Your task to perform on an android device: add a contact Image 0: 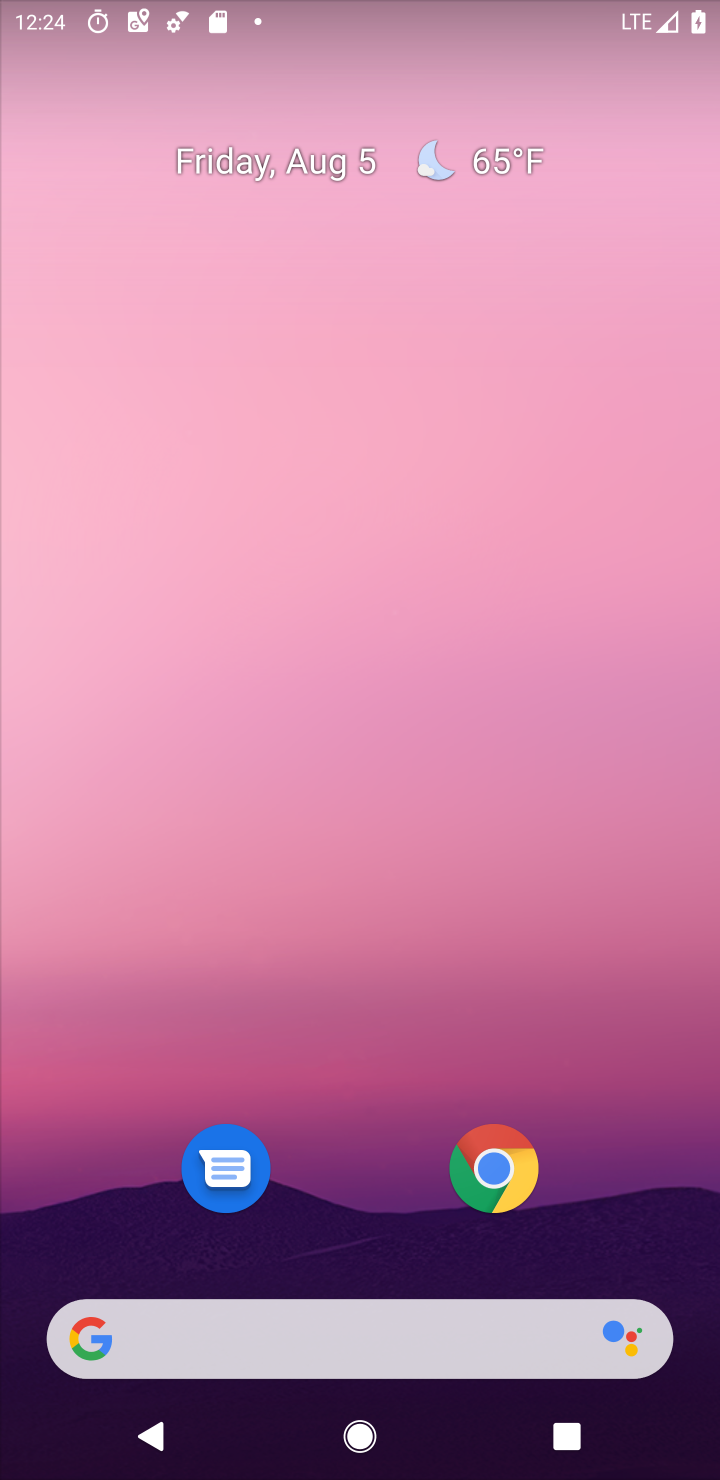
Step 0: drag from (311, 1208) to (407, 101)
Your task to perform on an android device: add a contact Image 1: 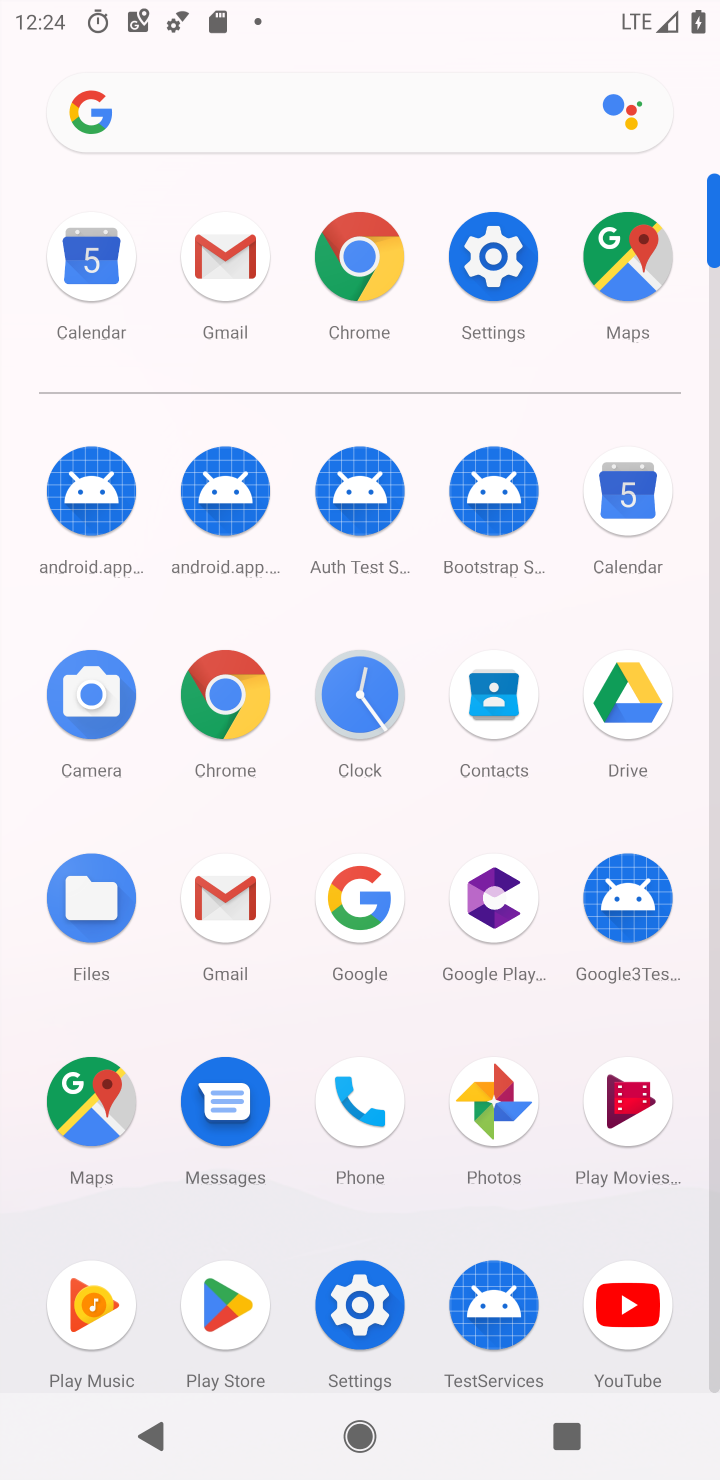
Step 1: click (468, 761)
Your task to perform on an android device: add a contact Image 2: 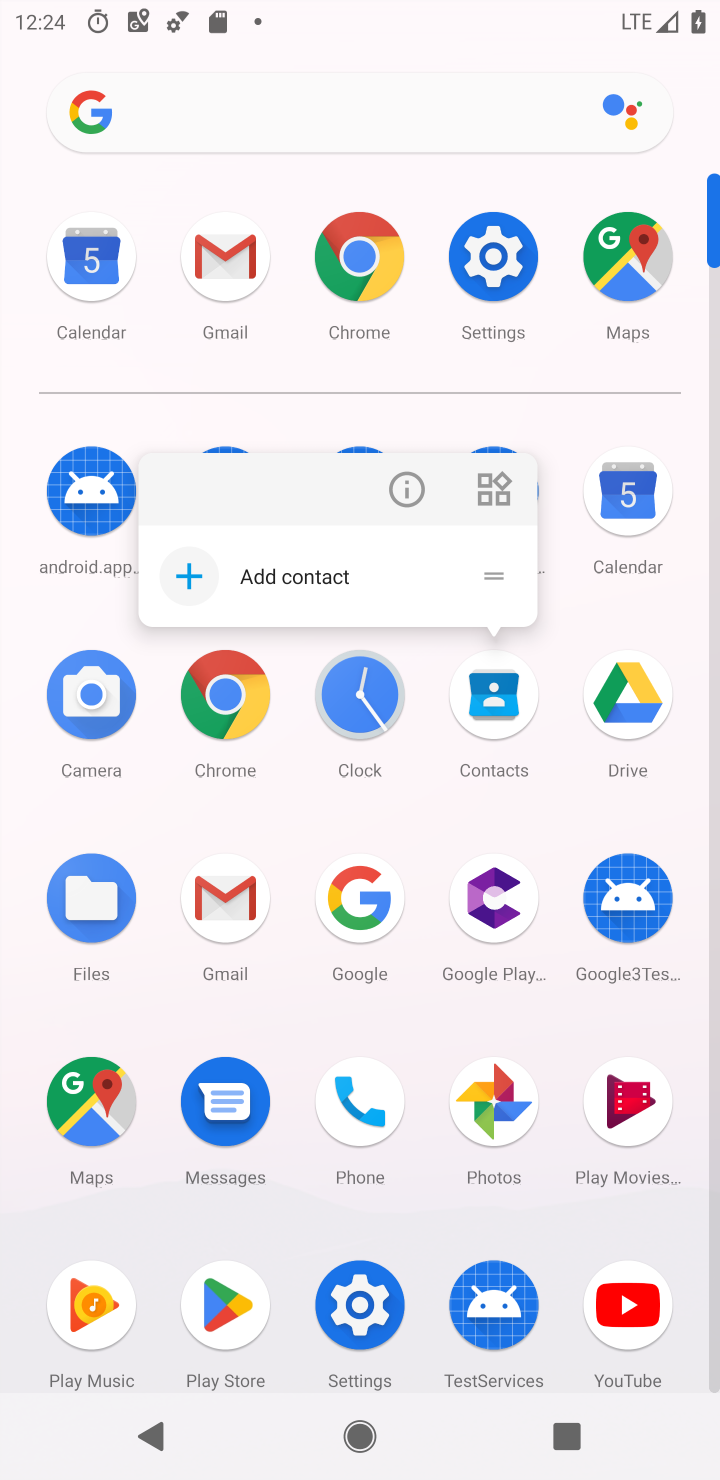
Step 2: click (492, 744)
Your task to perform on an android device: add a contact Image 3: 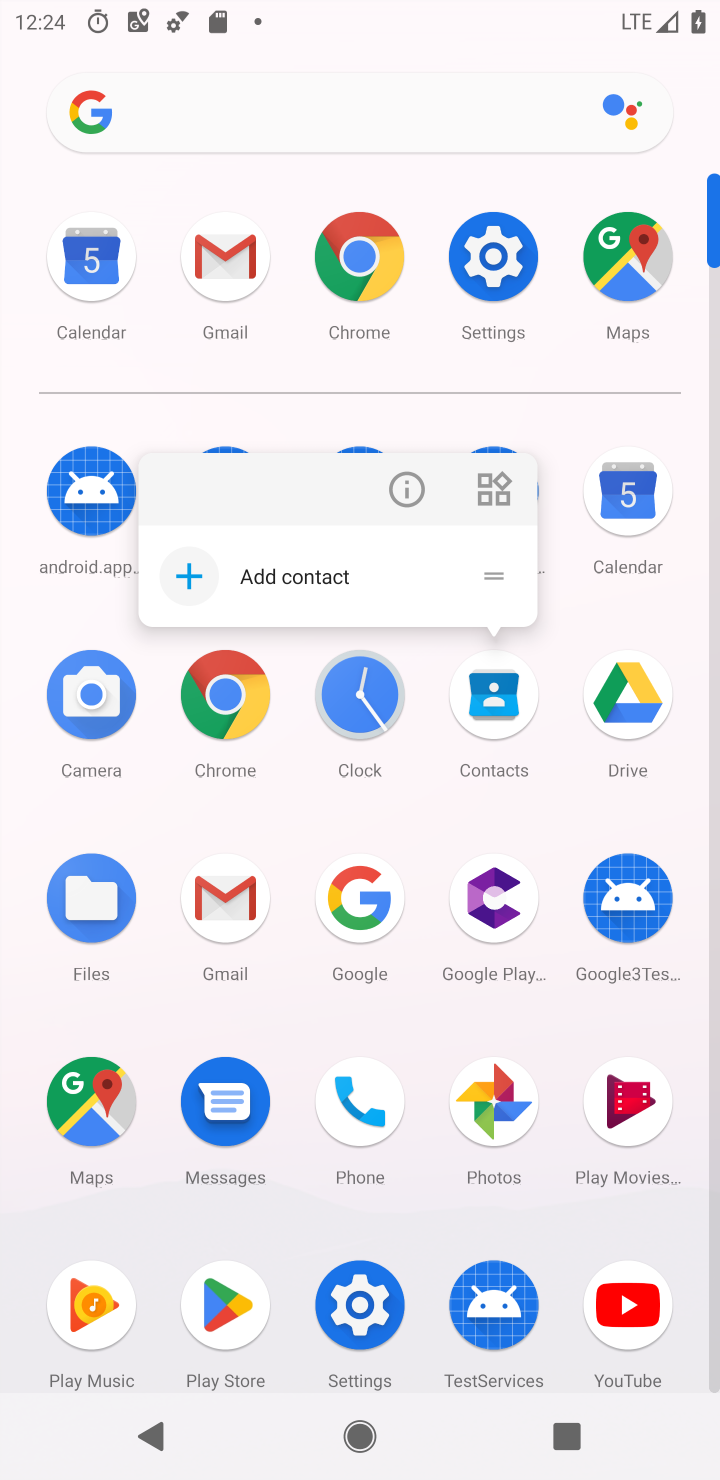
Step 3: click (492, 744)
Your task to perform on an android device: add a contact Image 4: 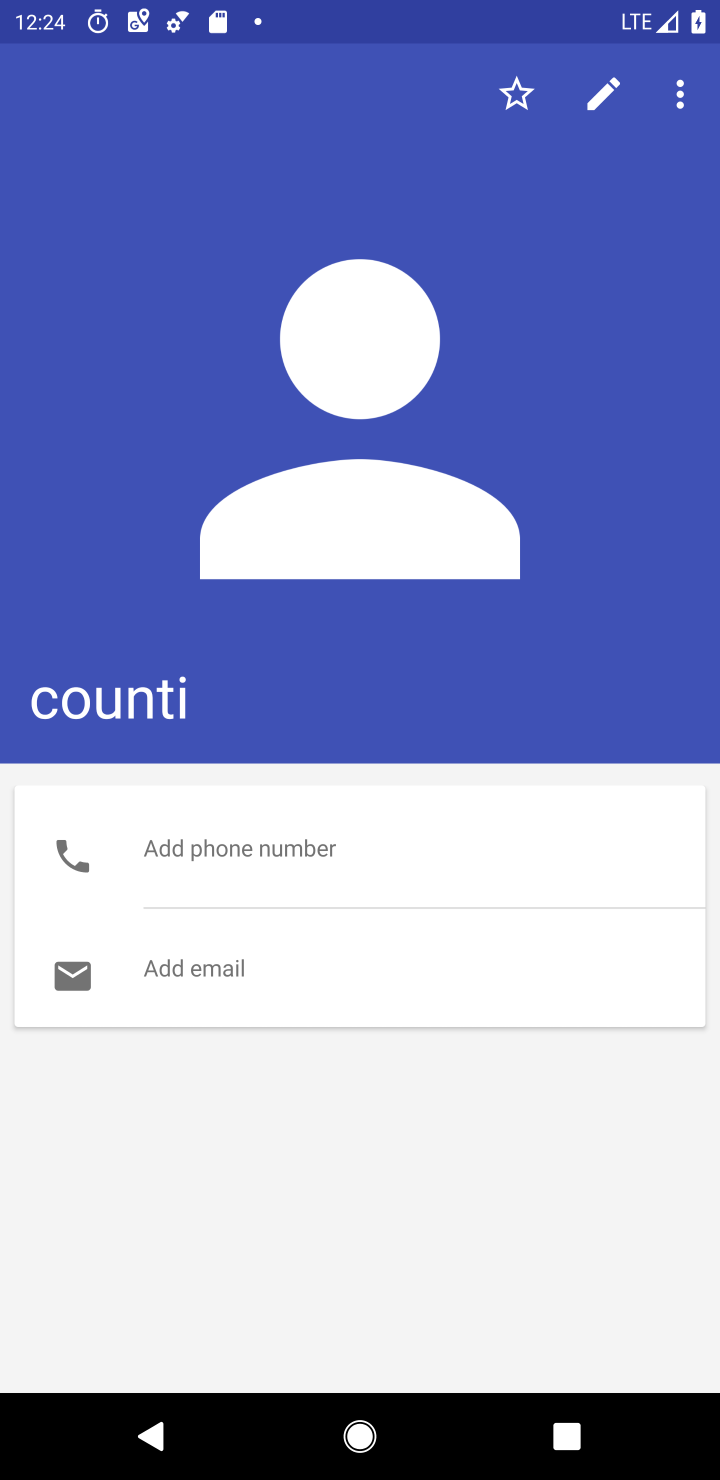
Step 4: click (136, 1421)
Your task to perform on an android device: add a contact Image 5: 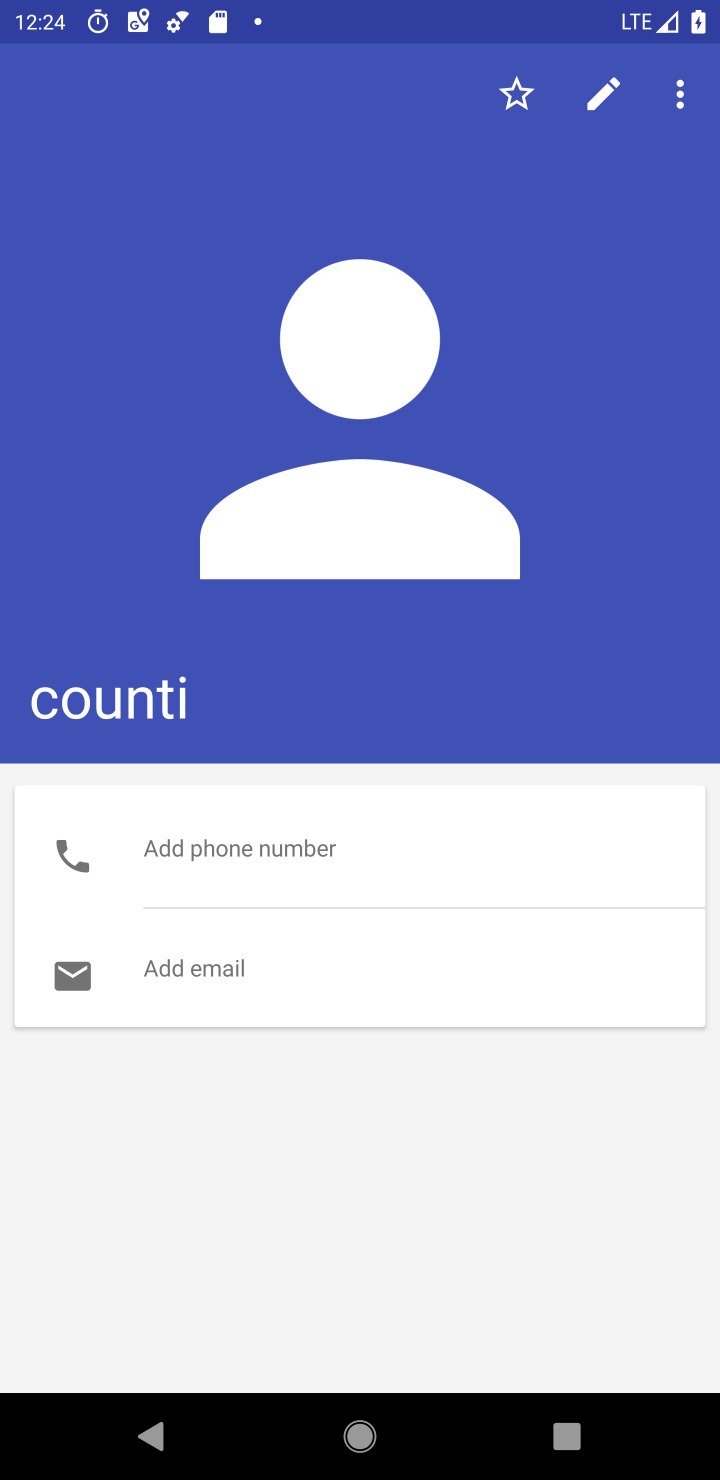
Step 5: press back button
Your task to perform on an android device: add a contact Image 6: 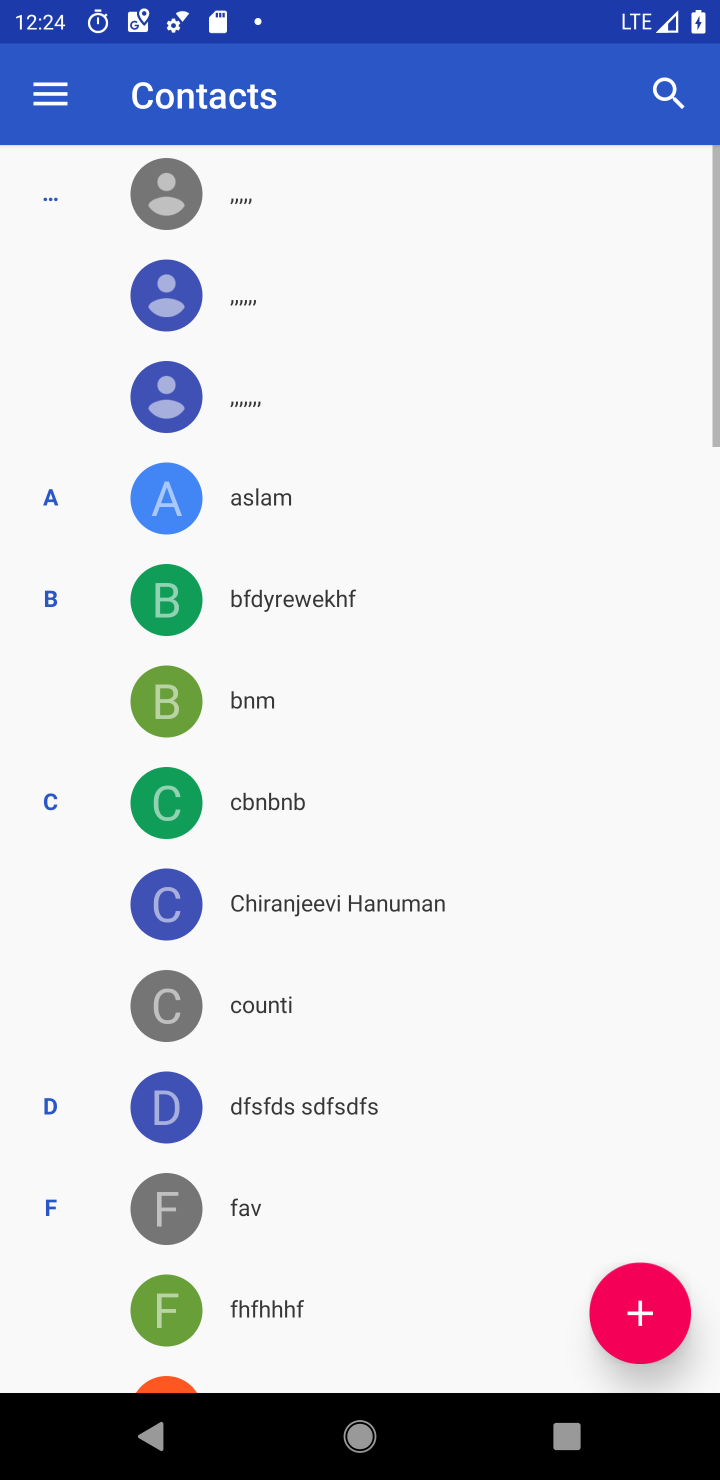
Step 6: click (659, 1279)
Your task to perform on an android device: add a contact Image 7: 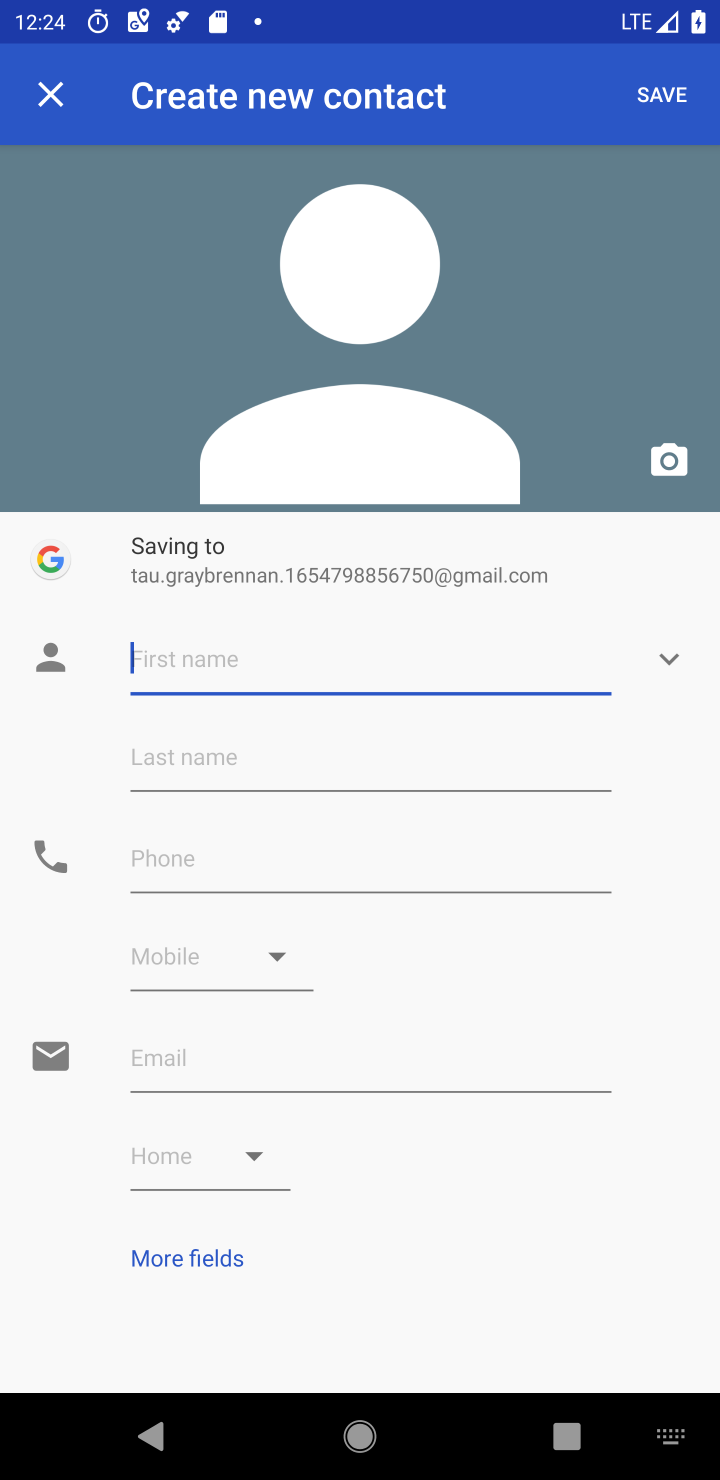
Step 7: type "cunder"
Your task to perform on an android device: add a contact Image 8: 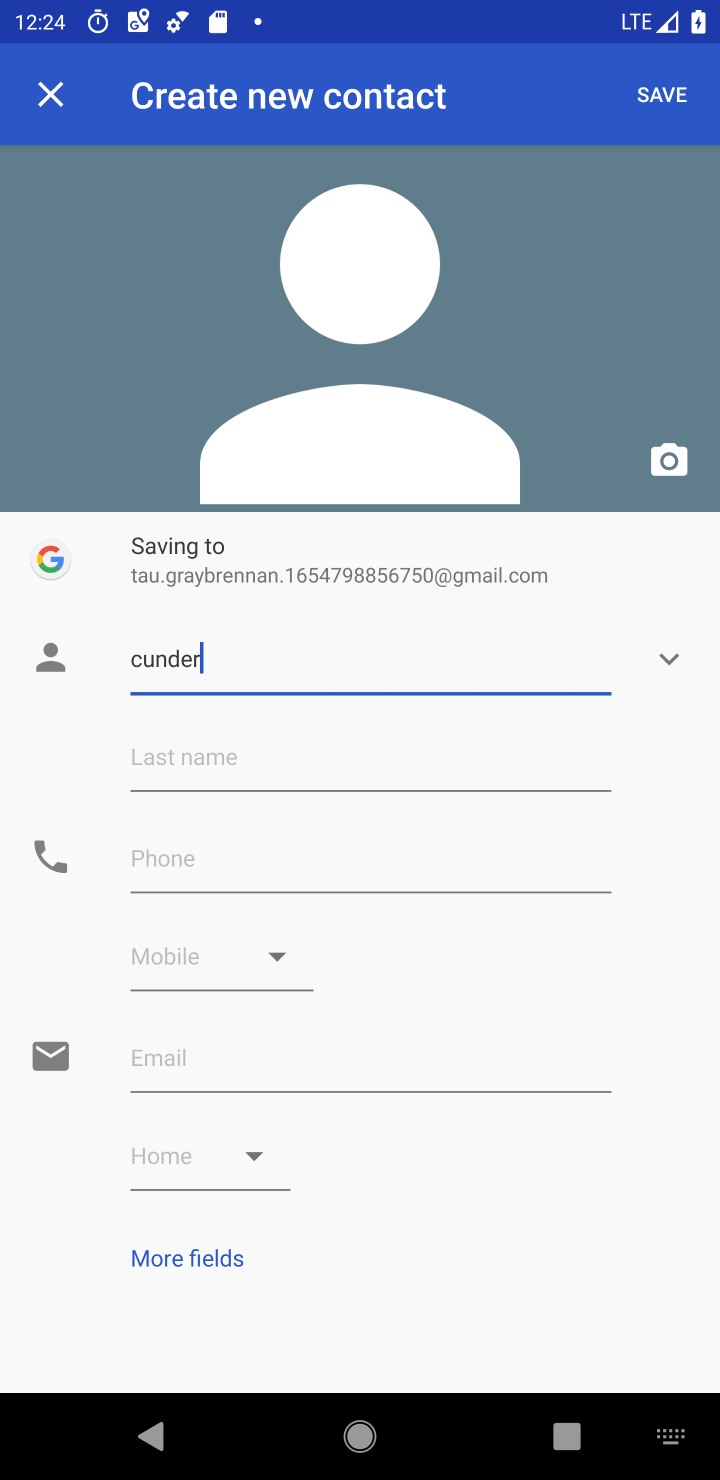
Step 8: click (650, 93)
Your task to perform on an android device: add a contact Image 9: 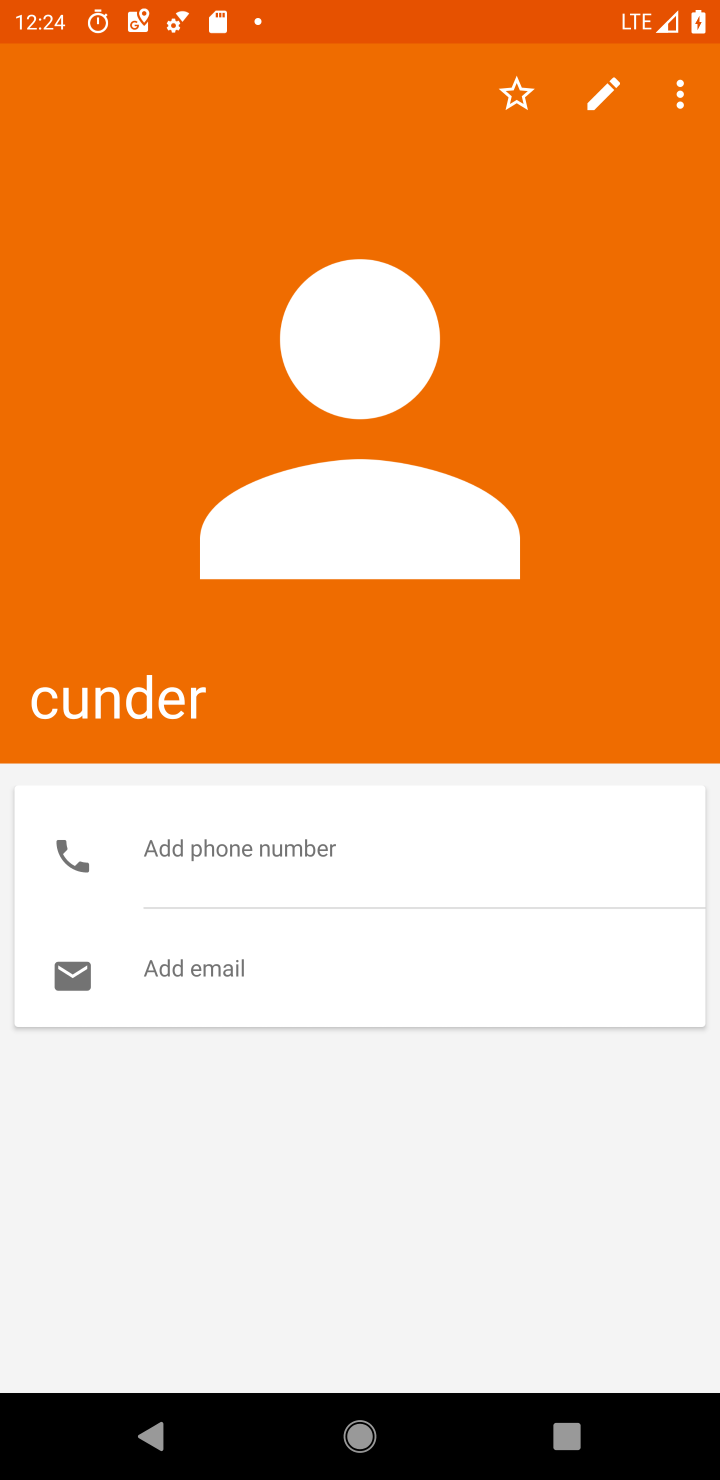
Step 9: task complete